Your task to perform on an android device: Open Google Image 0: 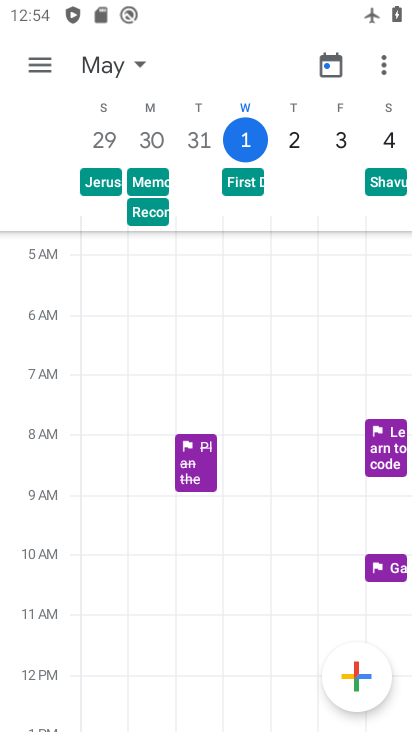
Step 0: press home button
Your task to perform on an android device: Open Google Image 1: 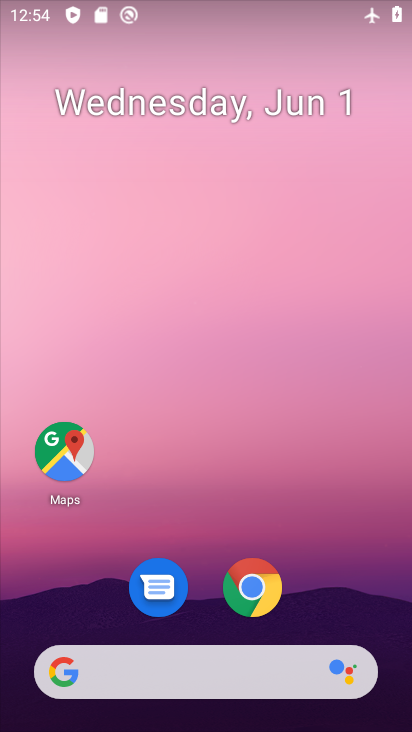
Step 1: click (170, 7)
Your task to perform on an android device: Open Google Image 2: 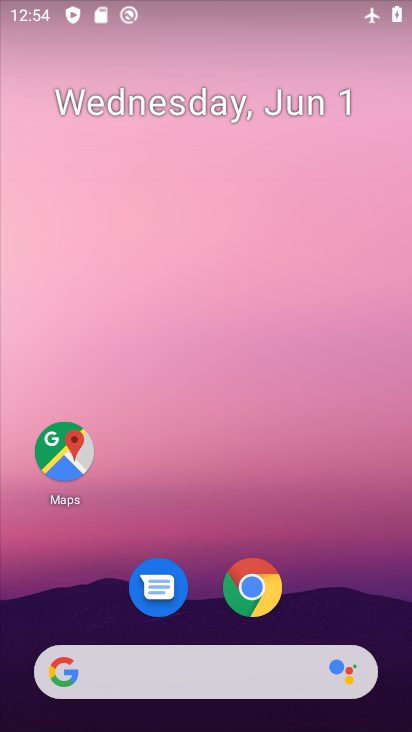
Step 2: click (58, 675)
Your task to perform on an android device: Open Google Image 3: 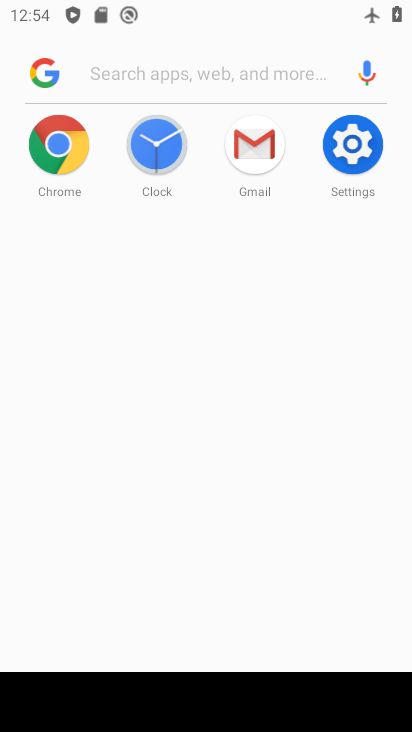
Step 3: click (46, 68)
Your task to perform on an android device: Open Google Image 4: 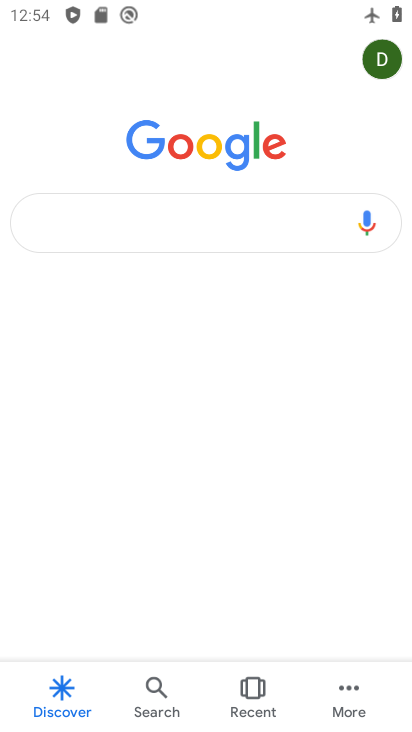
Step 4: click (46, 68)
Your task to perform on an android device: Open Google Image 5: 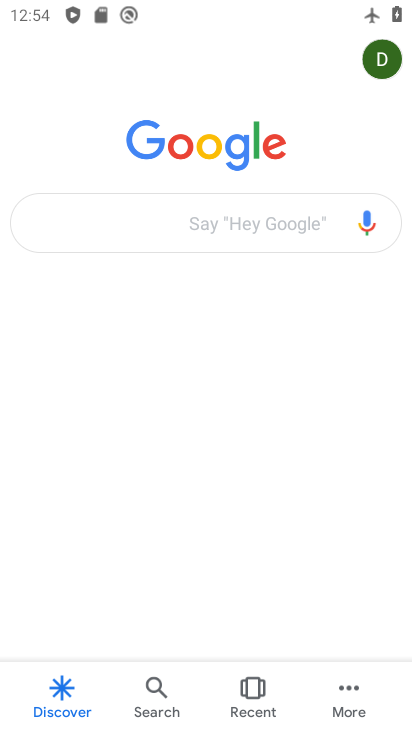
Step 5: task complete